Your task to perform on an android device: open a bookmark in the chrome app Image 0: 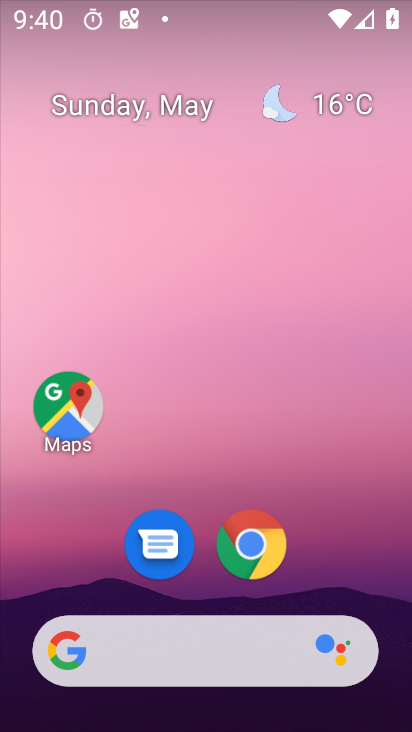
Step 0: click (238, 548)
Your task to perform on an android device: open a bookmark in the chrome app Image 1: 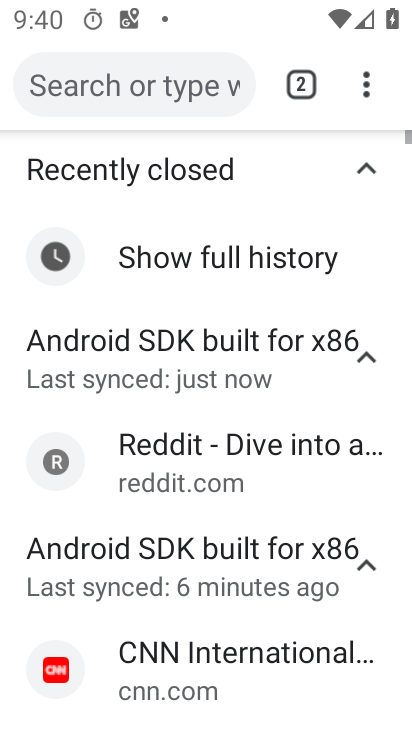
Step 1: click (367, 85)
Your task to perform on an android device: open a bookmark in the chrome app Image 2: 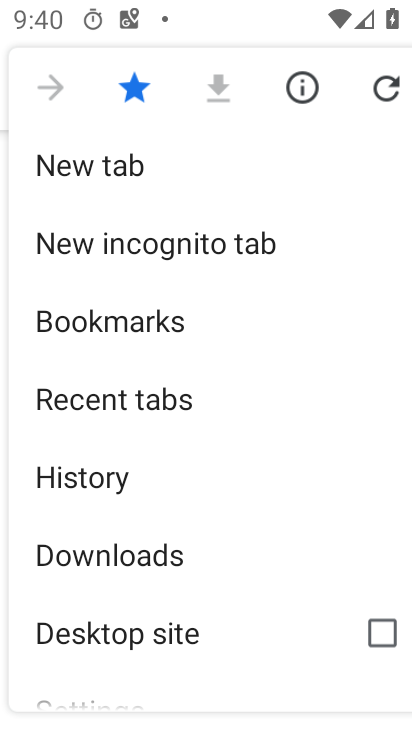
Step 2: click (95, 325)
Your task to perform on an android device: open a bookmark in the chrome app Image 3: 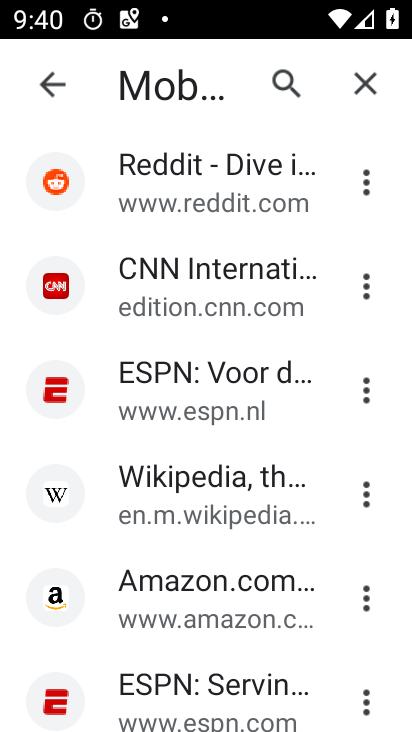
Step 3: click (193, 286)
Your task to perform on an android device: open a bookmark in the chrome app Image 4: 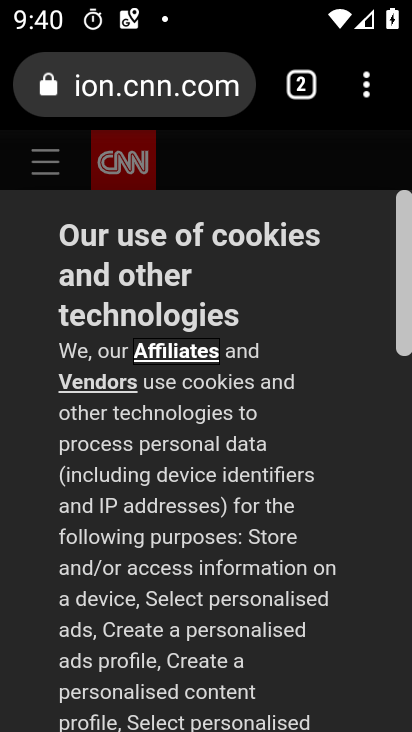
Step 4: task complete